Your task to perform on an android device: What's the weather going to be tomorrow? Image 0: 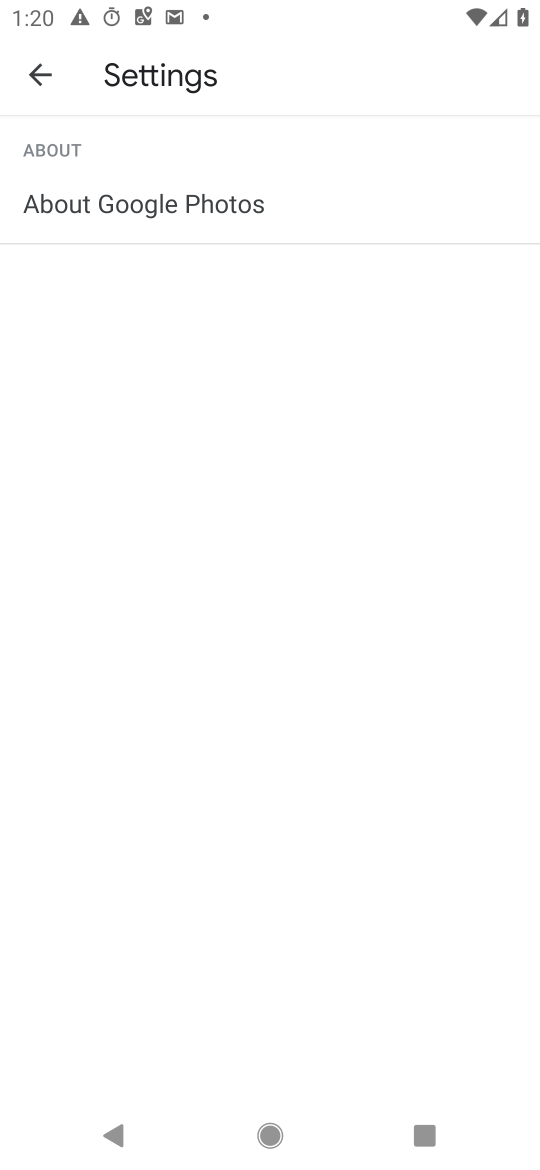
Step 0: drag from (387, 970) to (357, 13)
Your task to perform on an android device: What's the weather going to be tomorrow? Image 1: 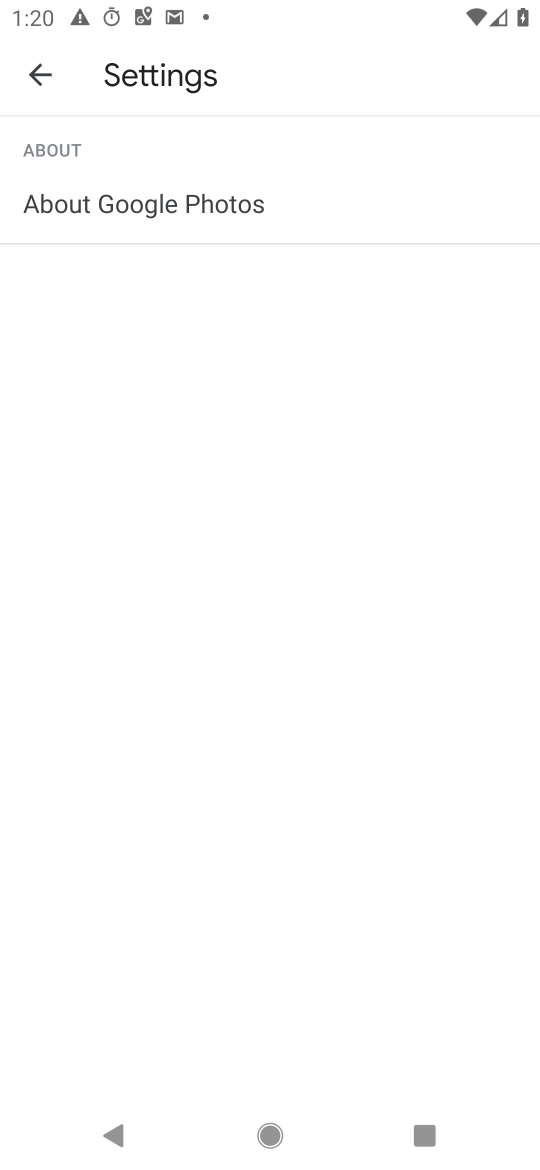
Step 1: press home button
Your task to perform on an android device: What's the weather going to be tomorrow? Image 2: 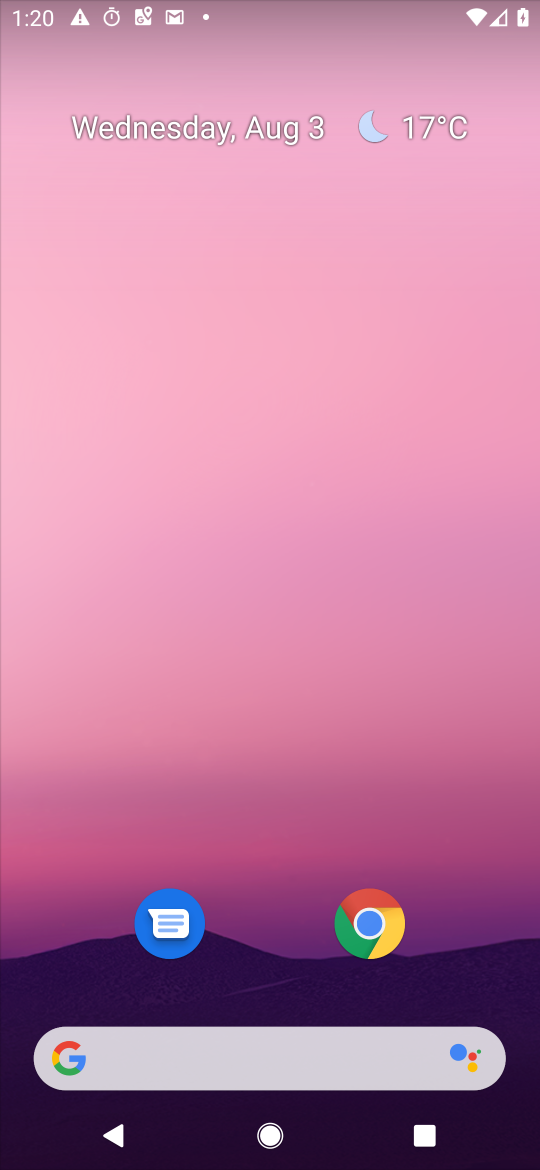
Step 2: drag from (259, 992) to (224, 30)
Your task to perform on an android device: What's the weather going to be tomorrow? Image 3: 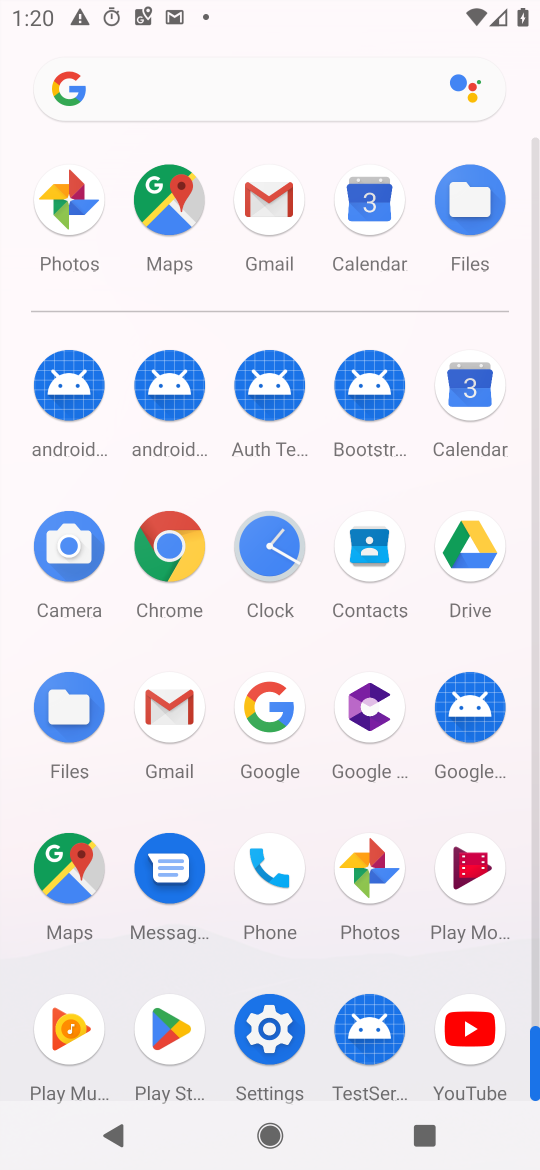
Step 3: drag from (244, 954) to (284, 167)
Your task to perform on an android device: What's the weather going to be tomorrow? Image 4: 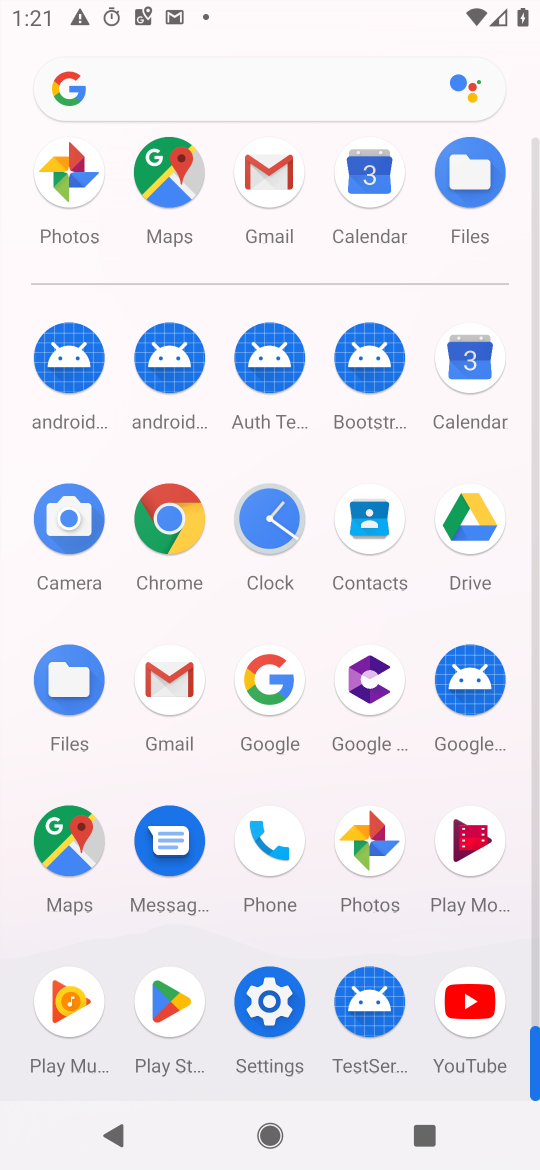
Step 4: drag from (314, 469) to (317, 347)
Your task to perform on an android device: What's the weather going to be tomorrow? Image 5: 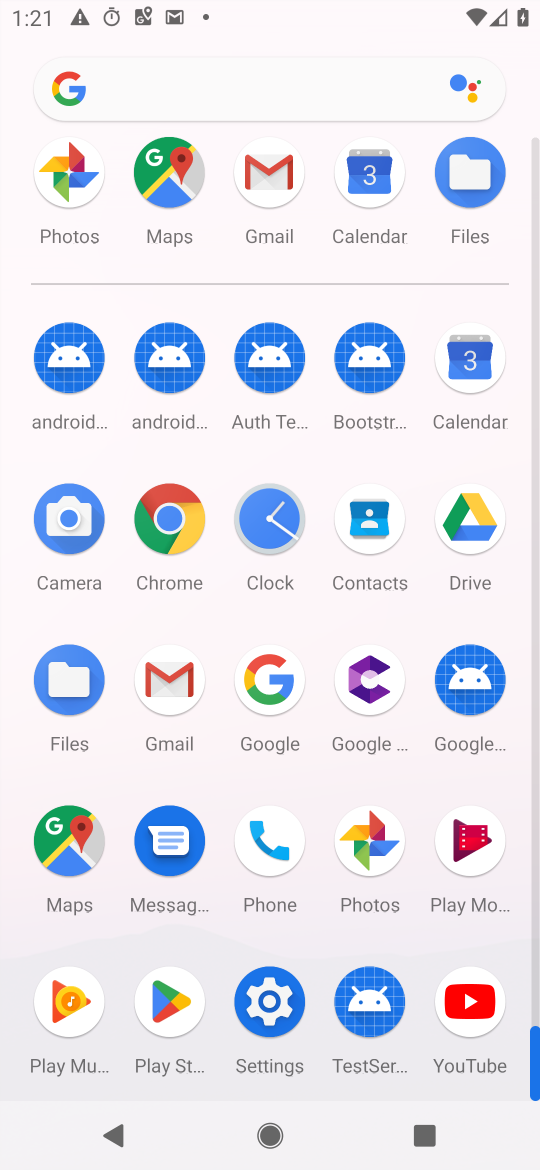
Step 5: click (285, 97)
Your task to perform on an android device: What's the weather going to be tomorrow? Image 6: 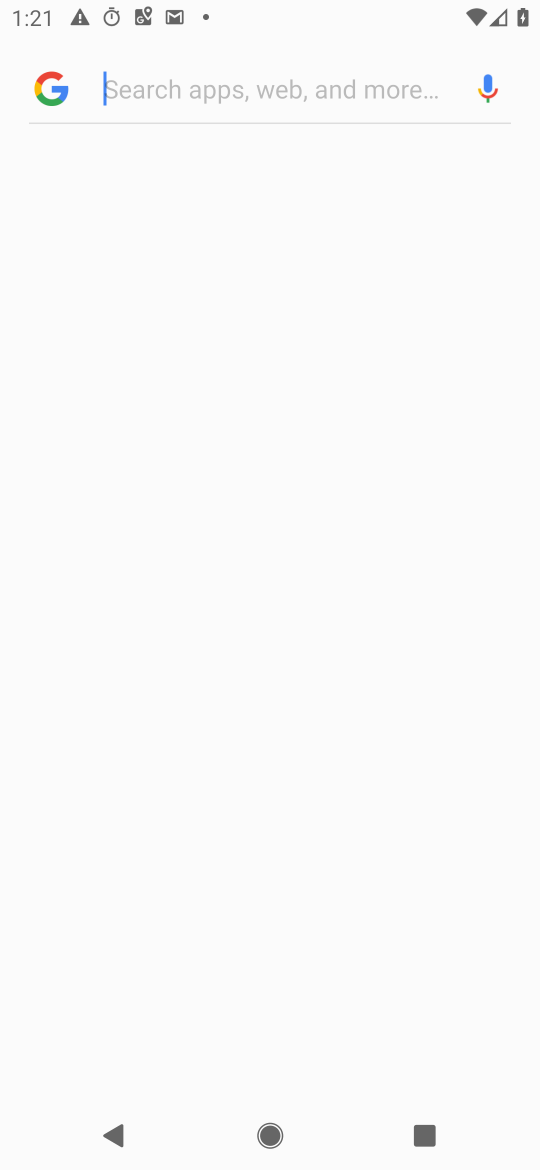
Step 6: click (260, 86)
Your task to perform on an android device: What's the weather going to be tomorrow? Image 7: 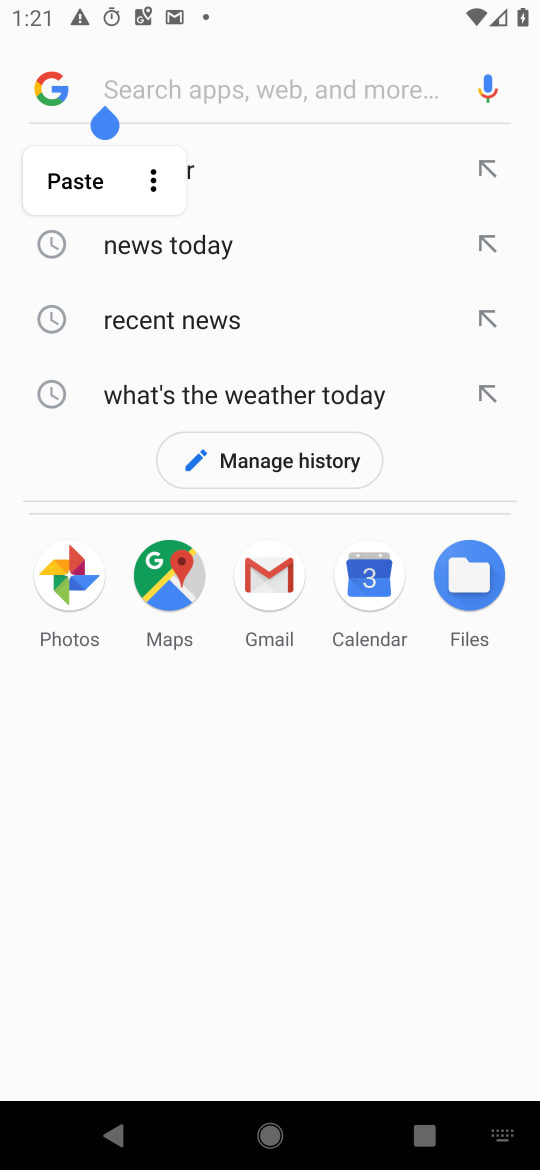
Step 7: click (260, 86)
Your task to perform on an android device: What's the weather going to be tomorrow? Image 8: 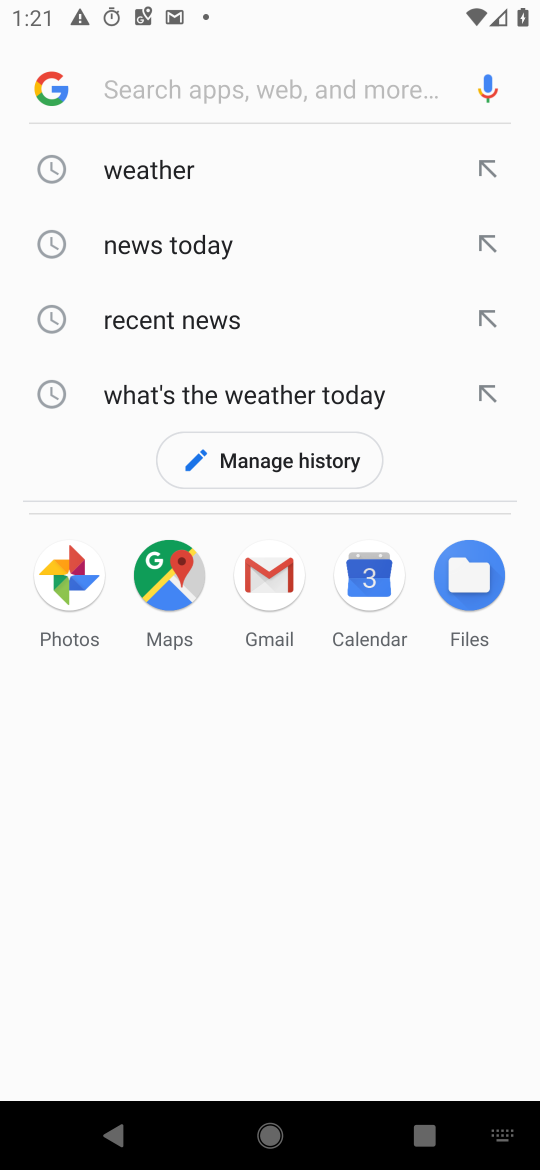
Step 8: type "What's the weather going to be tomorrow?"
Your task to perform on an android device: What's the weather going to be tomorrow? Image 9: 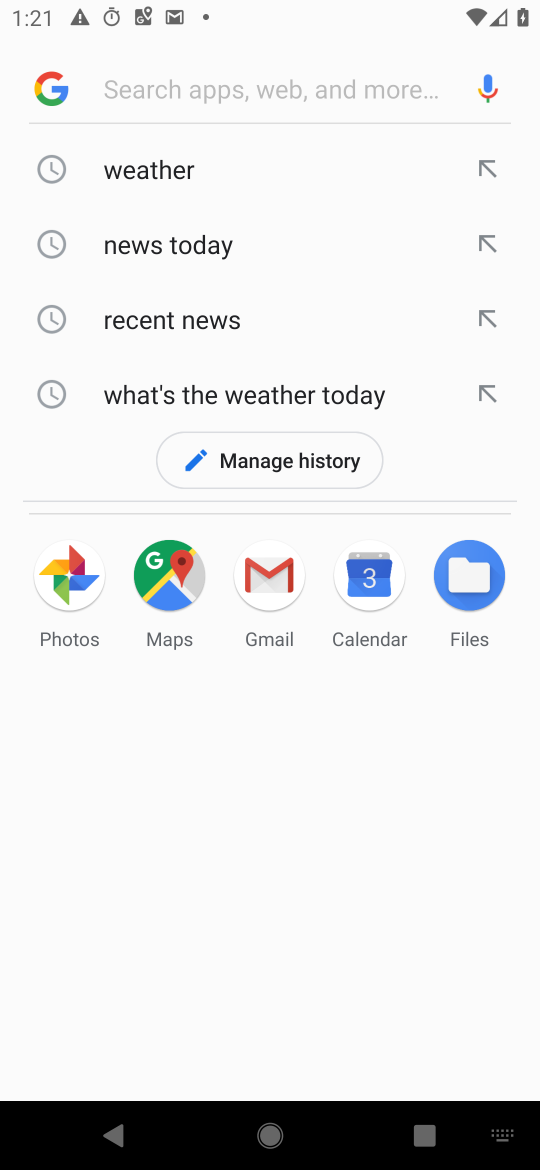
Step 9: click (259, 107)
Your task to perform on an android device: What's the weather going to be tomorrow? Image 10: 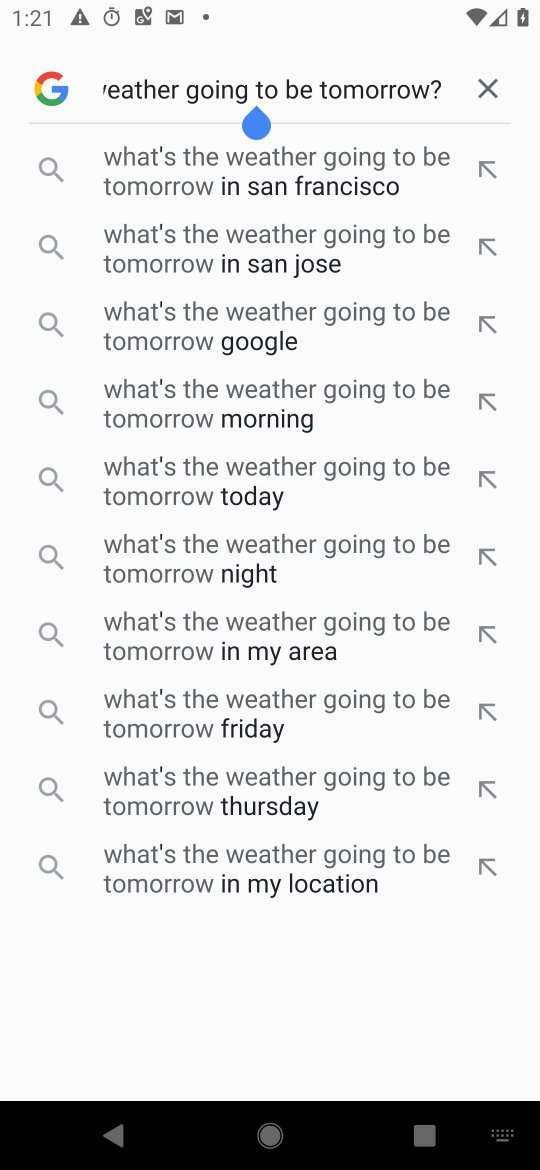
Step 10: click (247, 159)
Your task to perform on an android device: What's the weather going to be tomorrow? Image 11: 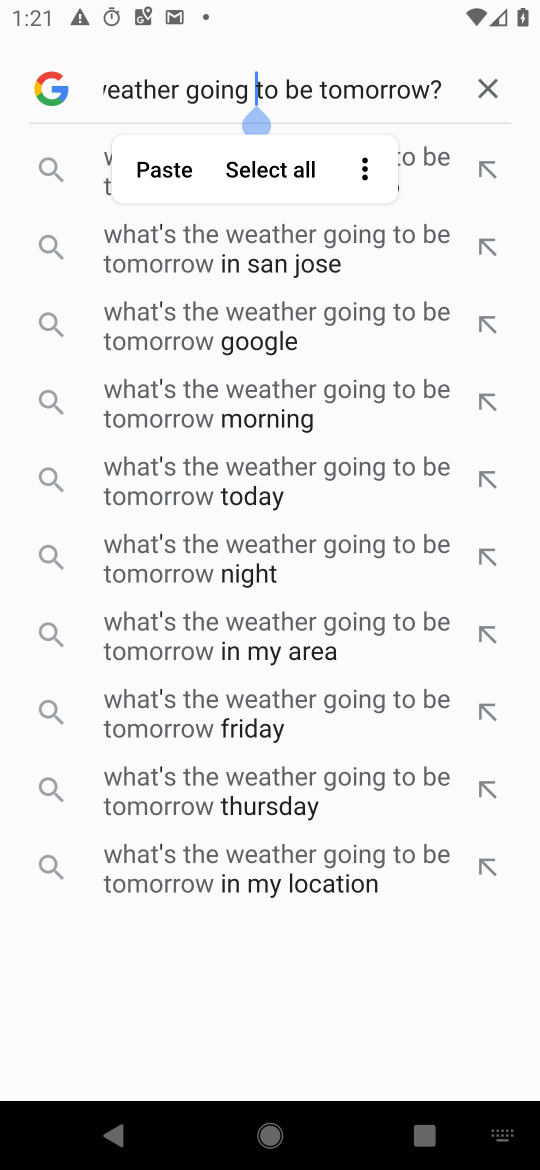
Step 11: click (87, 167)
Your task to perform on an android device: What's the weather going to be tomorrow? Image 12: 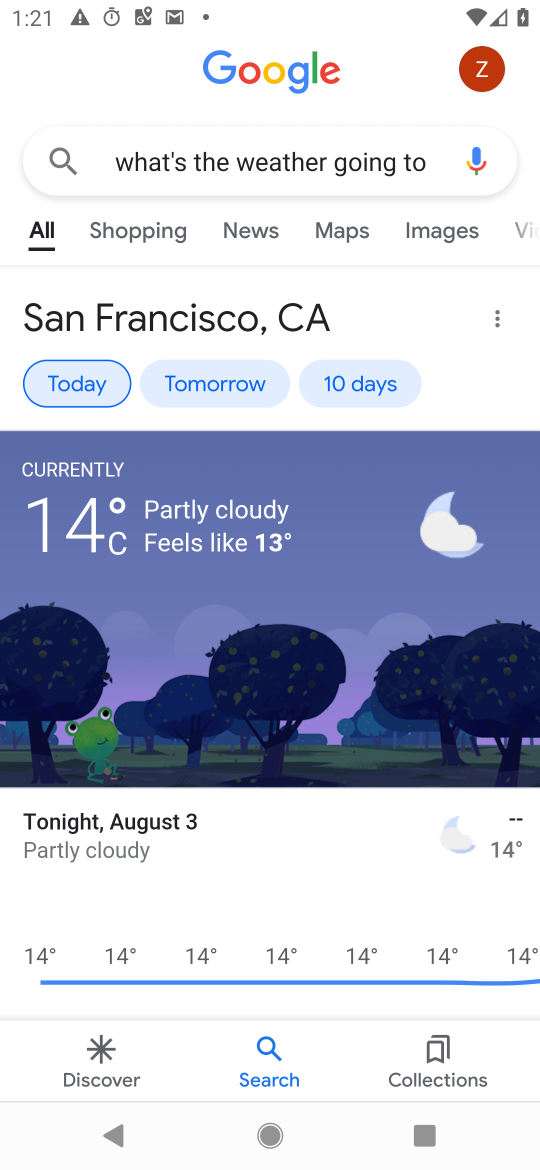
Step 12: task complete